Your task to perform on an android device: Go to Maps Image 0: 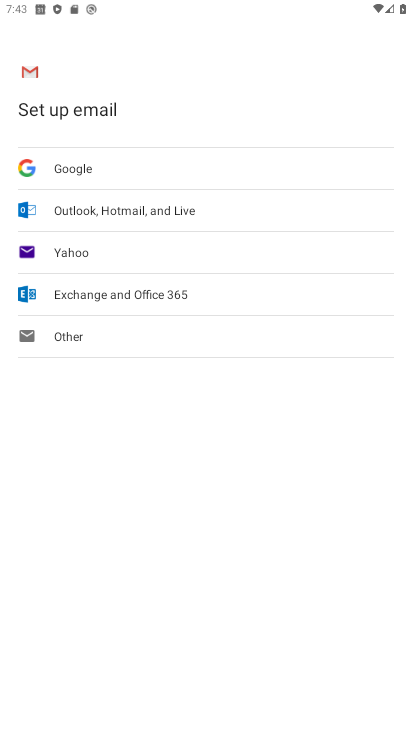
Step 0: task complete